Your task to perform on an android device: remove spam from my inbox in the gmail app Image 0: 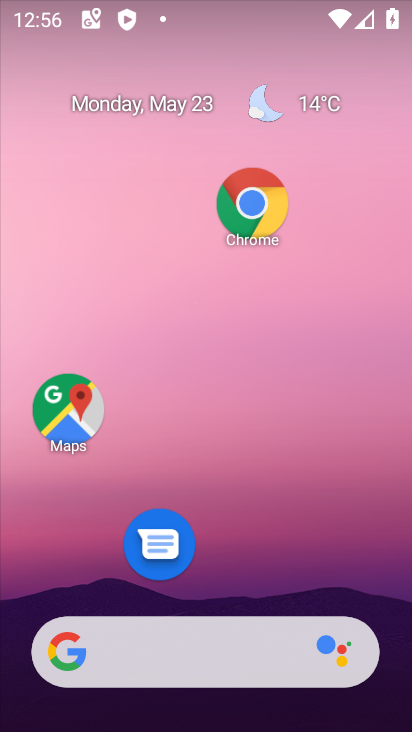
Step 0: drag from (270, 586) to (173, 102)
Your task to perform on an android device: remove spam from my inbox in the gmail app Image 1: 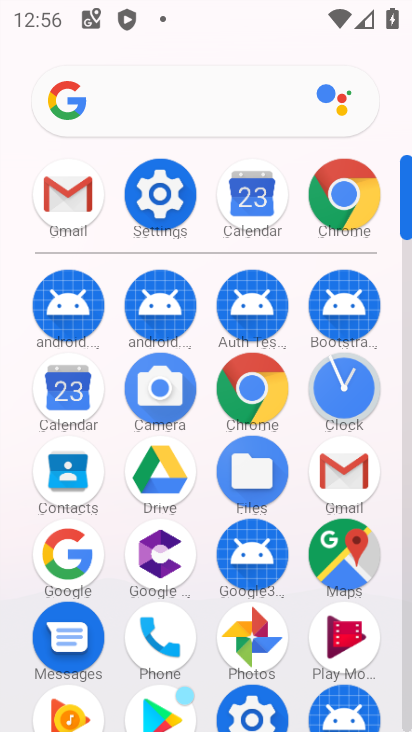
Step 1: click (62, 199)
Your task to perform on an android device: remove spam from my inbox in the gmail app Image 2: 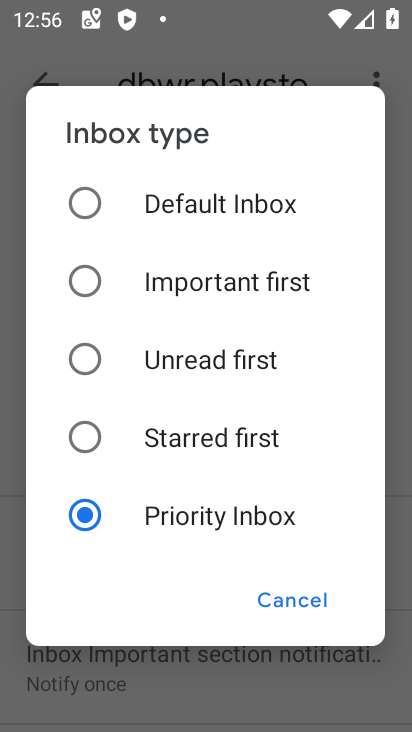
Step 2: click (287, 600)
Your task to perform on an android device: remove spam from my inbox in the gmail app Image 3: 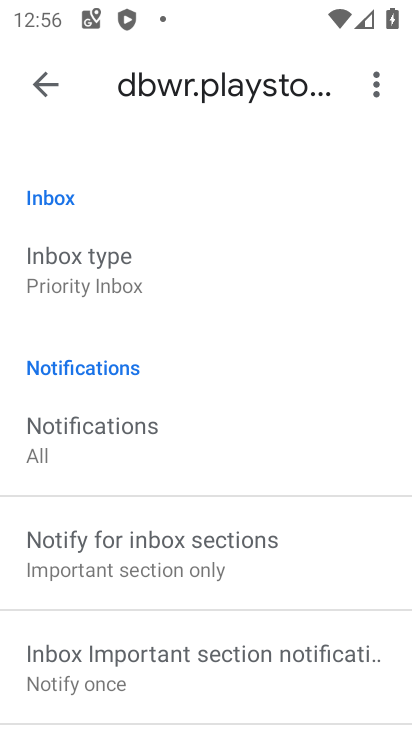
Step 3: click (56, 84)
Your task to perform on an android device: remove spam from my inbox in the gmail app Image 4: 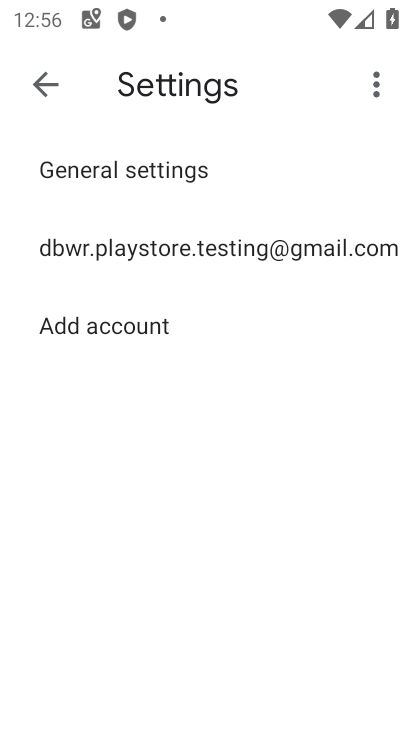
Step 4: click (55, 83)
Your task to perform on an android device: remove spam from my inbox in the gmail app Image 5: 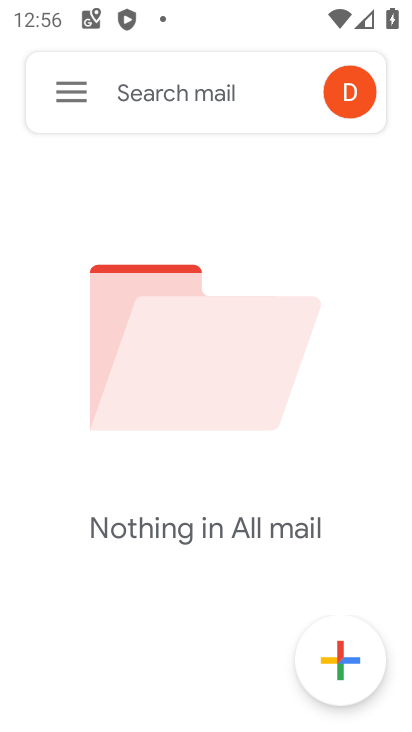
Step 5: click (55, 83)
Your task to perform on an android device: remove spam from my inbox in the gmail app Image 6: 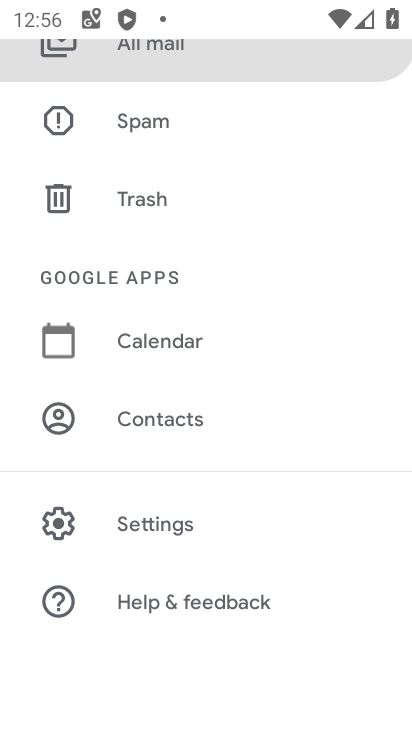
Step 6: drag from (168, 148) to (242, 641)
Your task to perform on an android device: remove spam from my inbox in the gmail app Image 7: 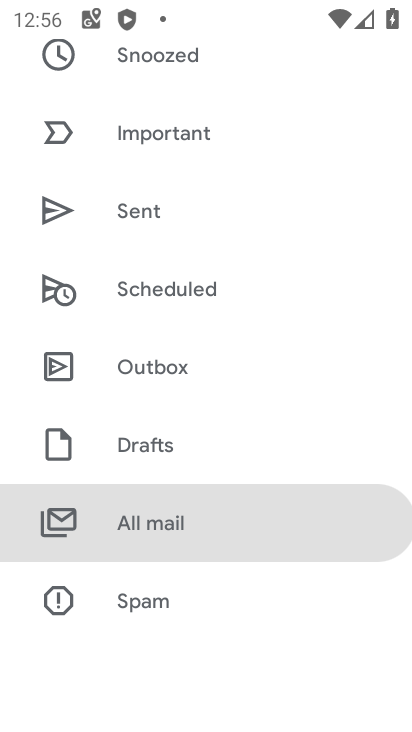
Step 7: drag from (185, 163) to (174, 609)
Your task to perform on an android device: remove spam from my inbox in the gmail app Image 8: 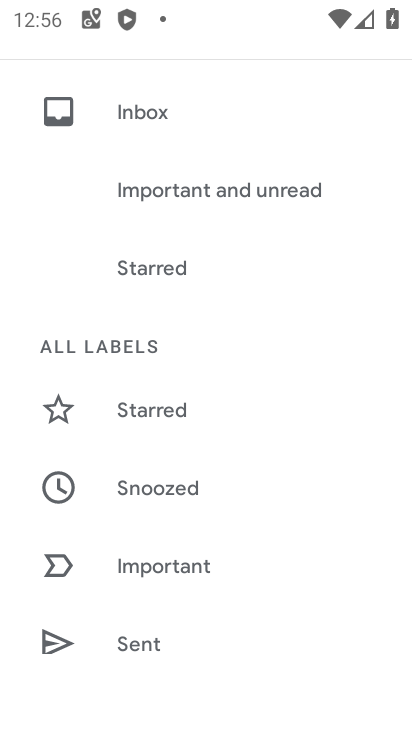
Step 8: click (147, 103)
Your task to perform on an android device: remove spam from my inbox in the gmail app Image 9: 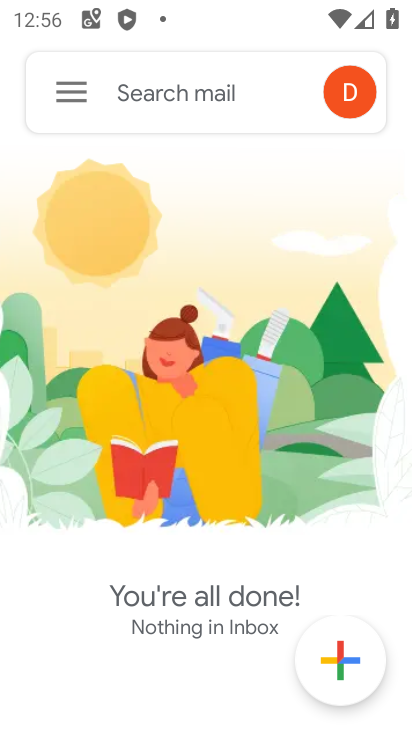
Step 9: task complete